Your task to perform on an android device: turn off smart reply in the gmail app Image 0: 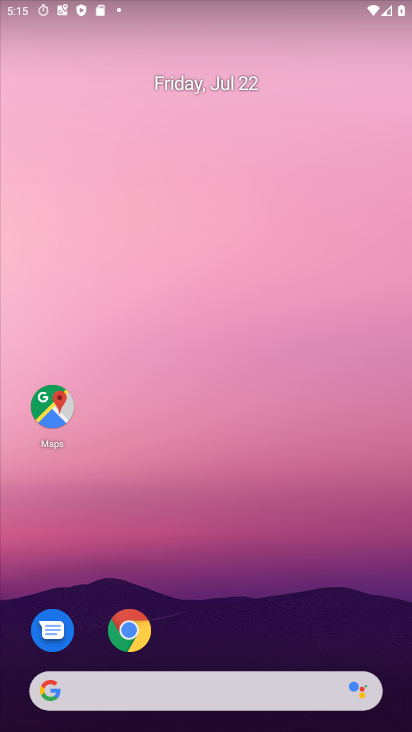
Step 0: drag from (261, 690) to (248, 181)
Your task to perform on an android device: turn off smart reply in the gmail app Image 1: 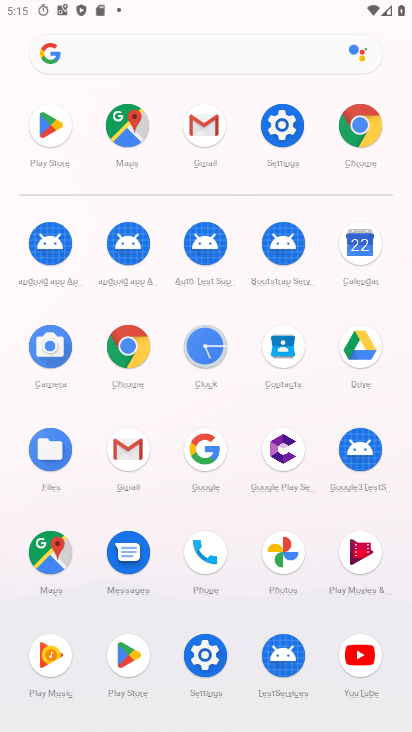
Step 1: click (140, 439)
Your task to perform on an android device: turn off smart reply in the gmail app Image 2: 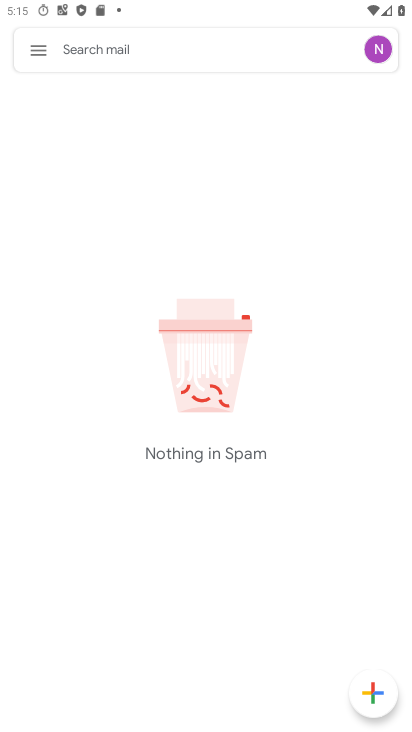
Step 2: click (29, 46)
Your task to perform on an android device: turn off smart reply in the gmail app Image 3: 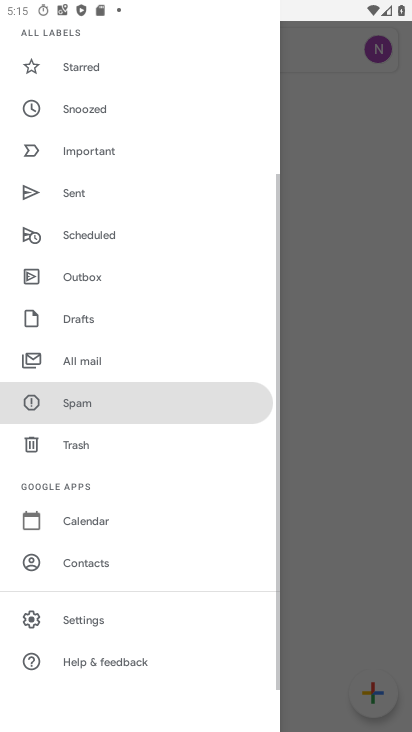
Step 3: click (120, 625)
Your task to perform on an android device: turn off smart reply in the gmail app Image 4: 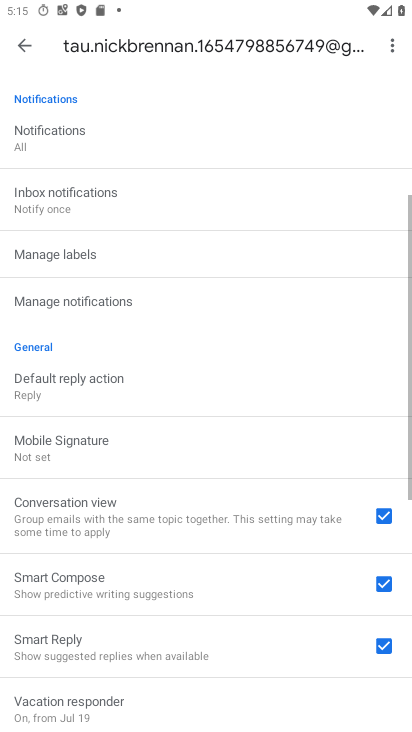
Step 4: drag from (182, 526) to (170, 268)
Your task to perform on an android device: turn off smart reply in the gmail app Image 5: 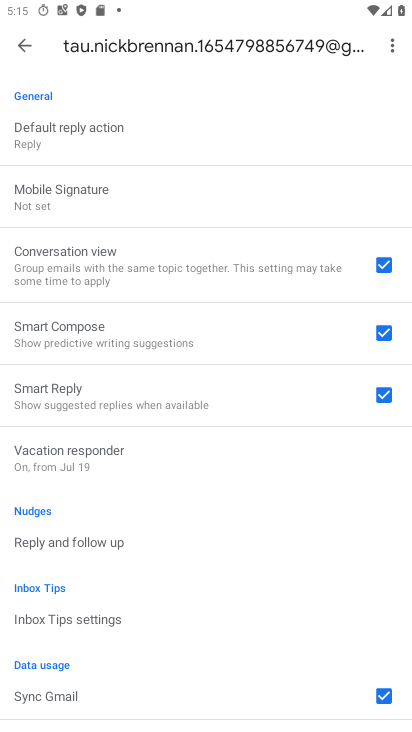
Step 5: click (373, 332)
Your task to perform on an android device: turn off smart reply in the gmail app Image 6: 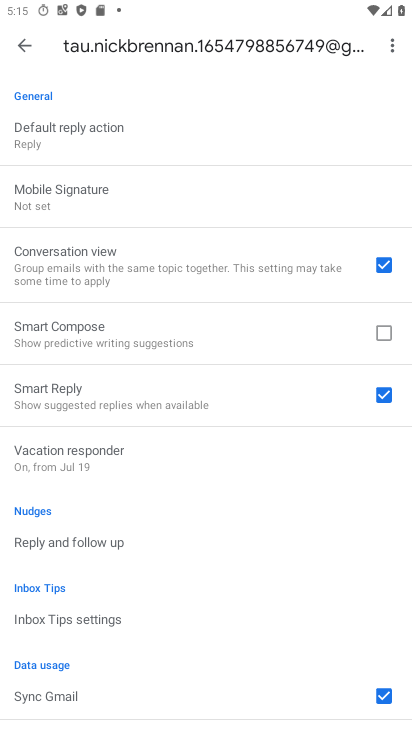
Step 6: task complete